Your task to perform on an android device: change the upload size in google photos Image 0: 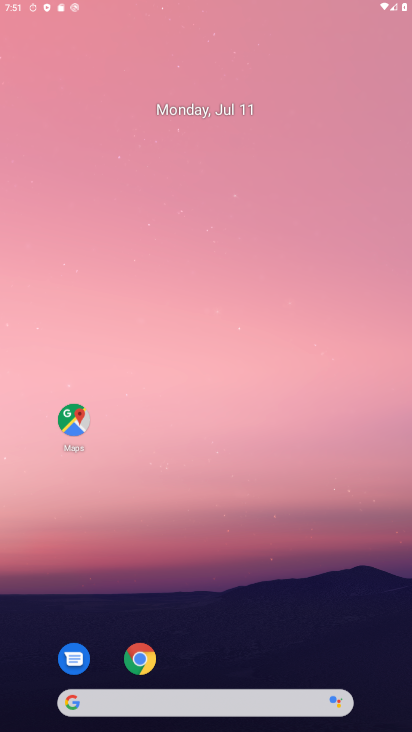
Step 0: drag from (326, 586) to (394, 4)
Your task to perform on an android device: change the upload size in google photos Image 1: 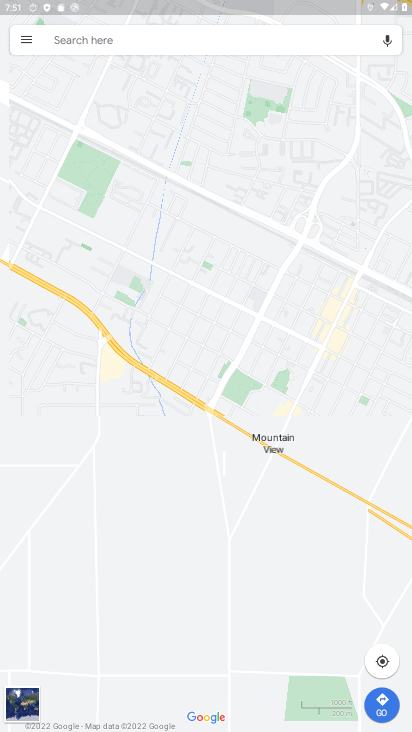
Step 1: press home button
Your task to perform on an android device: change the upload size in google photos Image 2: 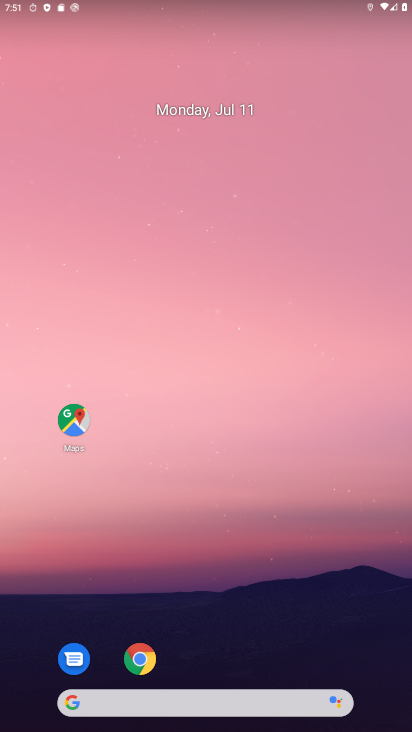
Step 2: drag from (265, 615) to (324, 5)
Your task to perform on an android device: change the upload size in google photos Image 3: 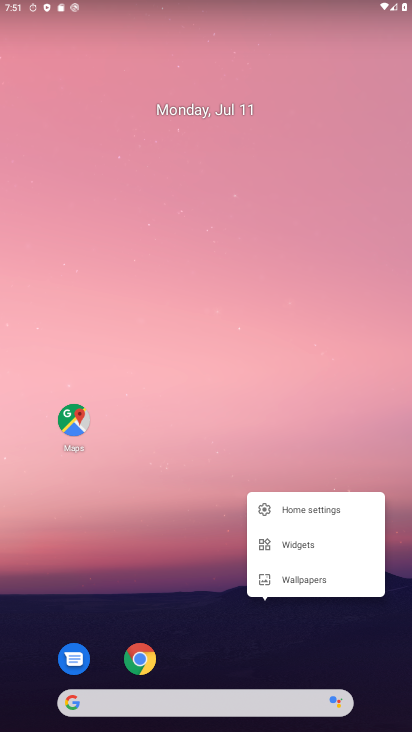
Step 3: click (272, 406)
Your task to perform on an android device: change the upload size in google photos Image 4: 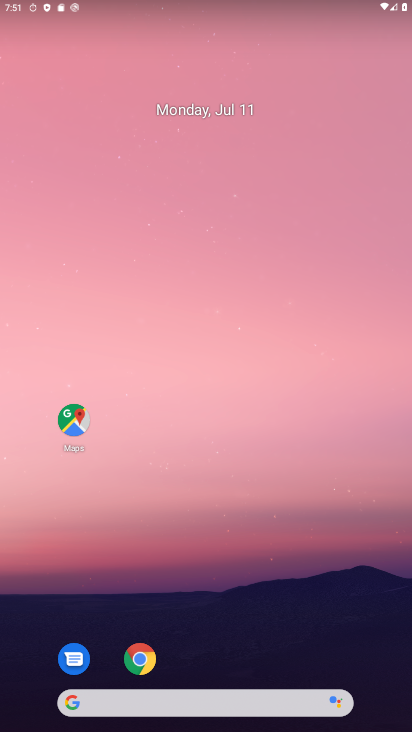
Step 4: drag from (280, 621) to (297, 21)
Your task to perform on an android device: change the upload size in google photos Image 5: 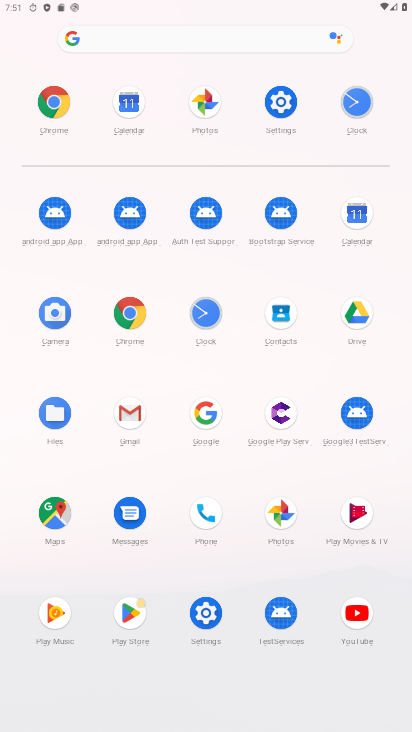
Step 5: drag from (287, 635) to (351, 2)
Your task to perform on an android device: change the upload size in google photos Image 6: 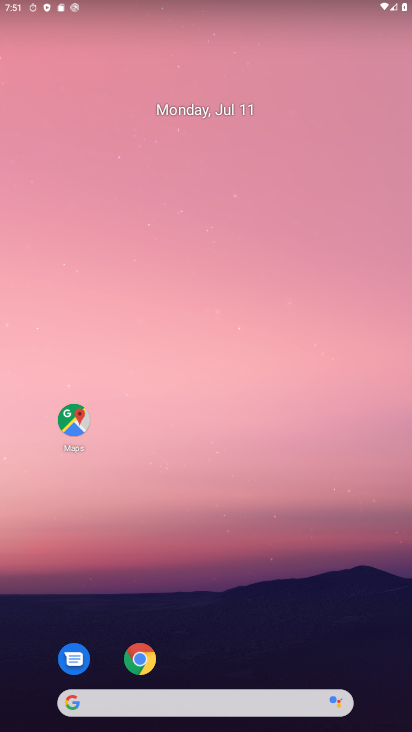
Step 6: drag from (327, 652) to (376, 3)
Your task to perform on an android device: change the upload size in google photos Image 7: 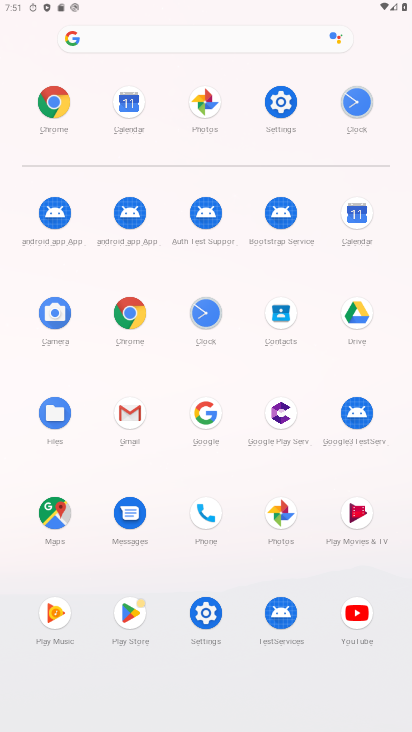
Step 7: click (214, 103)
Your task to perform on an android device: change the upload size in google photos Image 8: 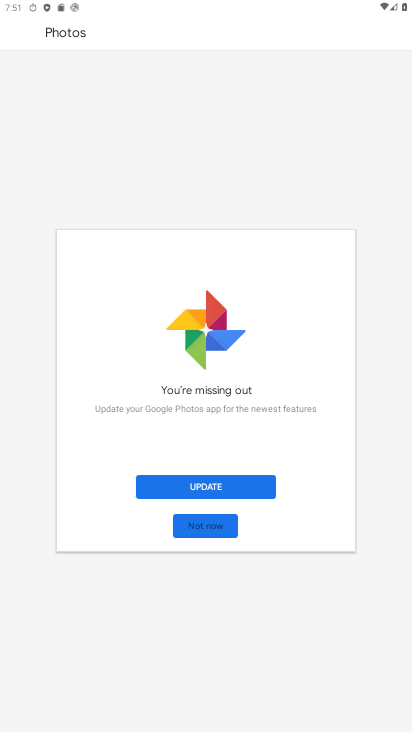
Step 8: click (212, 531)
Your task to perform on an android device: change the upload size in google photos Image 9: 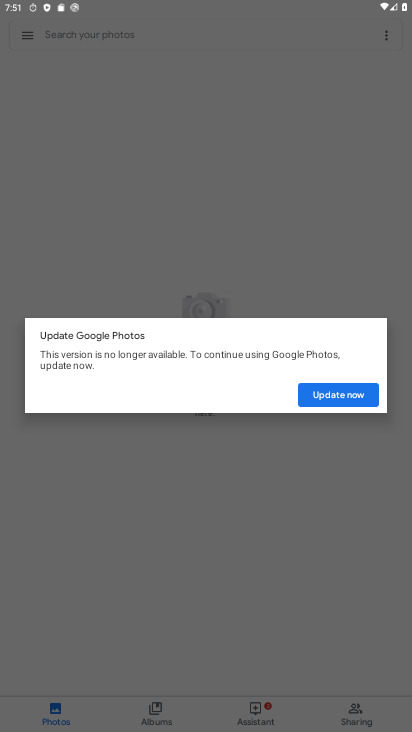
Step 9: click (342, 391)
Your task to perform on an android device: change the upload size in google photos Image 10: 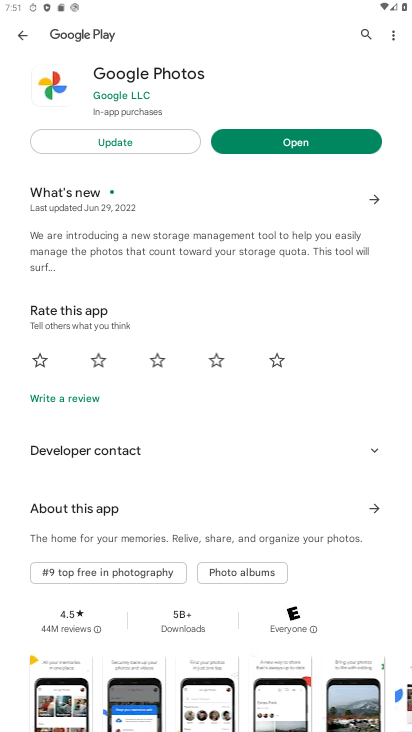
Step 10: click (168, 142)
Your task to perform on an android device: change the upload size in google photos Image 11: 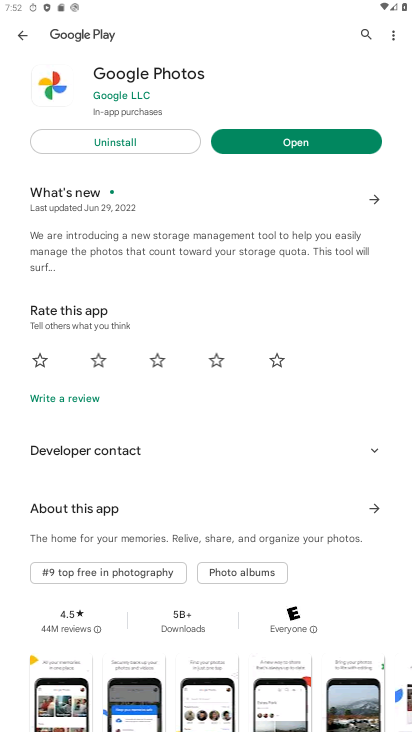
Step 11: click (294, 147)
Your task to perform on an android device: change the upload size in google photos Image 12: 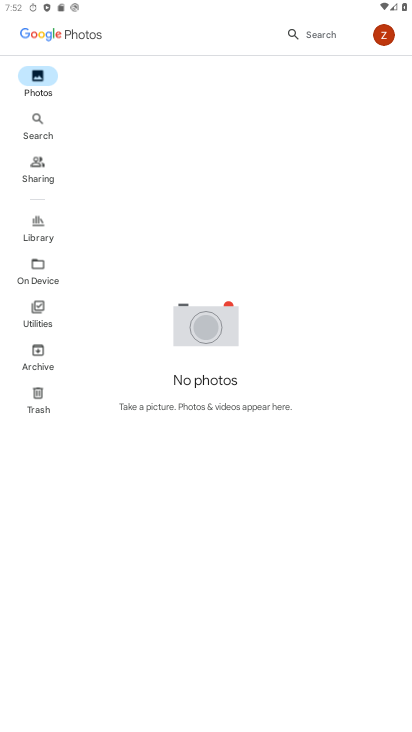
Step 12: click (377, 37)
Your task to perform on an android device: change the upload size in google photos Image 13: 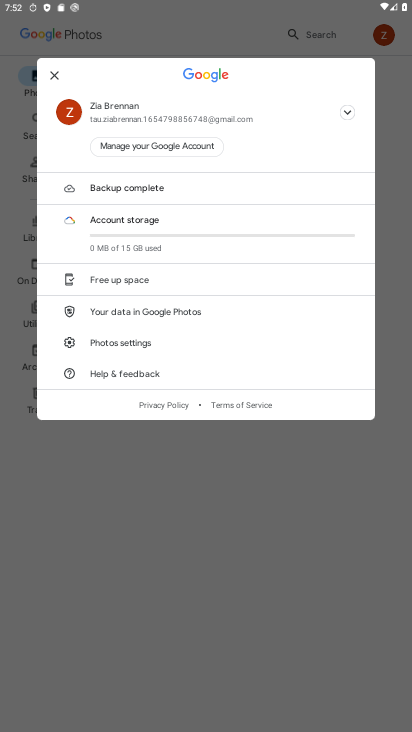
Step 13: click (140, 348)
Your task to perform on an android device: change the upload size in google photos Image 14: 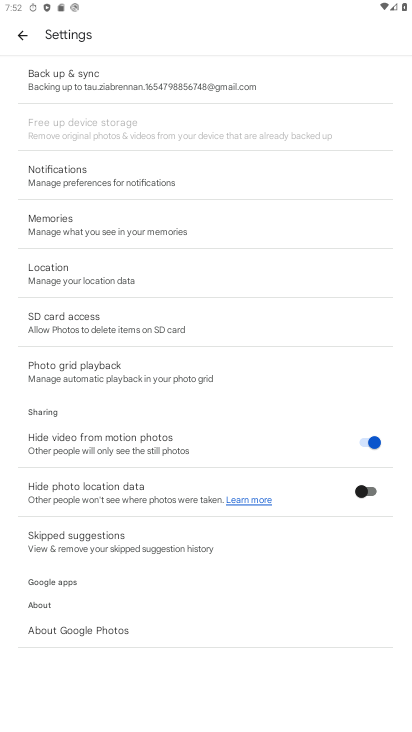
Step 14: click (83, 76)
Your task to perform on an android device: change the upload size in google photos Image 15: 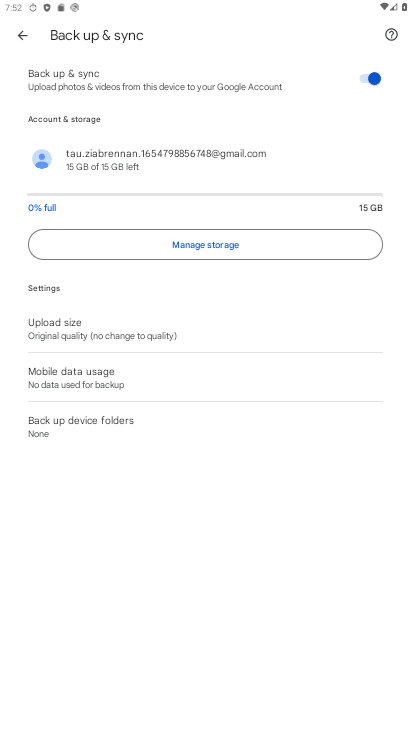
Step 15: click (83, 75)
Your task to perform on an android device: change the upload size in google photos Image 16: 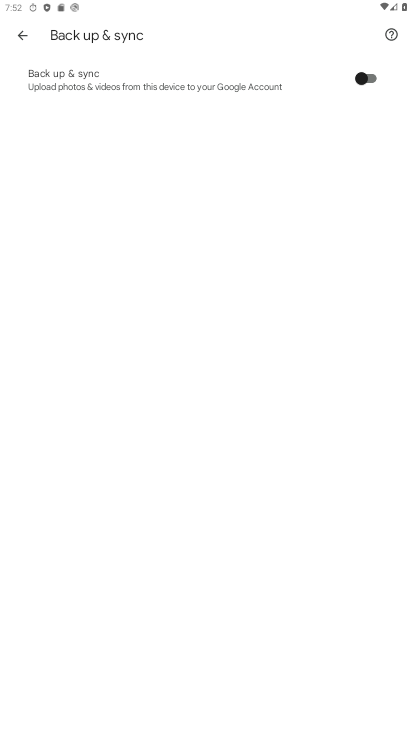
Step 16: click (102, 88)
Your task to perform on an android device: change the upload size in google photos Image 17: 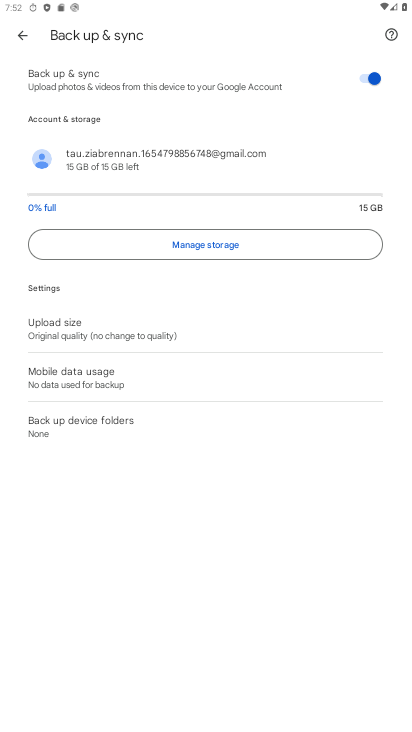
Step 17: click (133, 328)
Your task to perform on an android device: change the upload size in google photos Image 18: 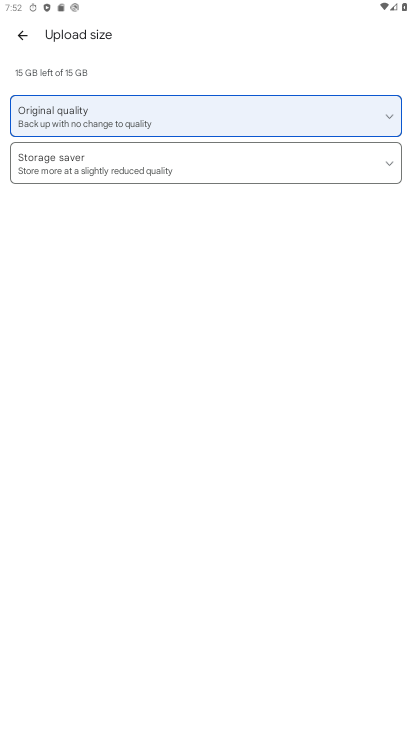
Step 18: click (96, 170)
Your task to perform on an android device: change the upload size in google photos Image 19: 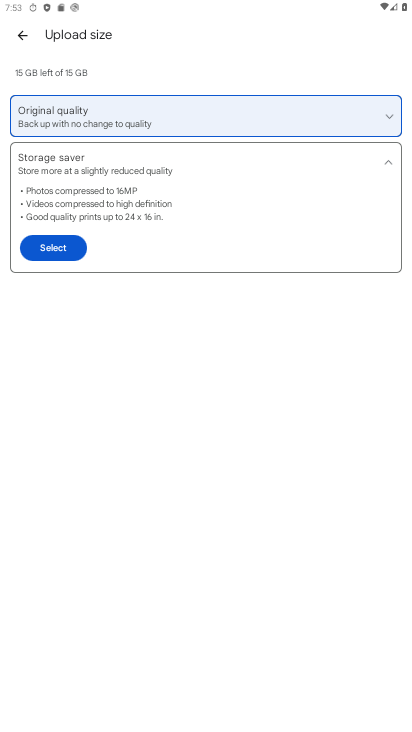
Step 19: click (59, 254)
Your task to perform on an android device: change the upload size in google photos Image 20: 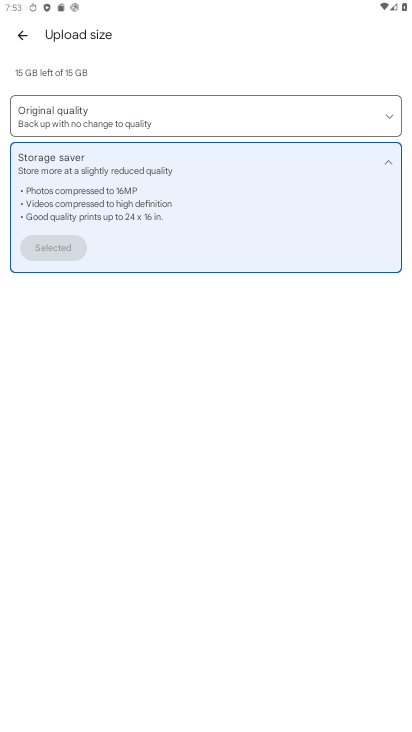
Step 20: task complete